Your task to perform on an android device: Open location settings Image 0: 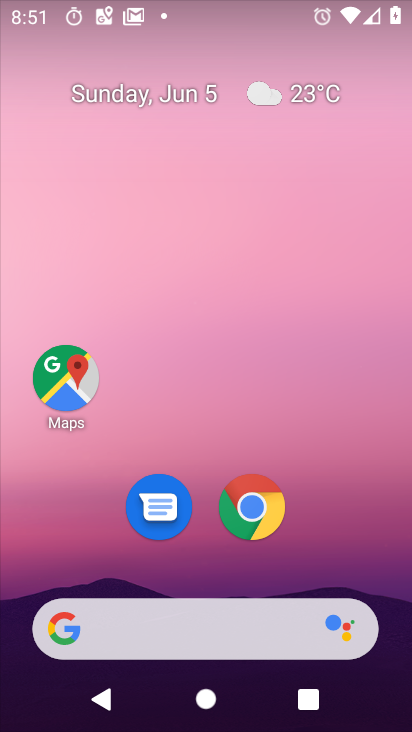
Step 0: click (339, 254)
Your task to perform on an android device: Open location settings Image 1: 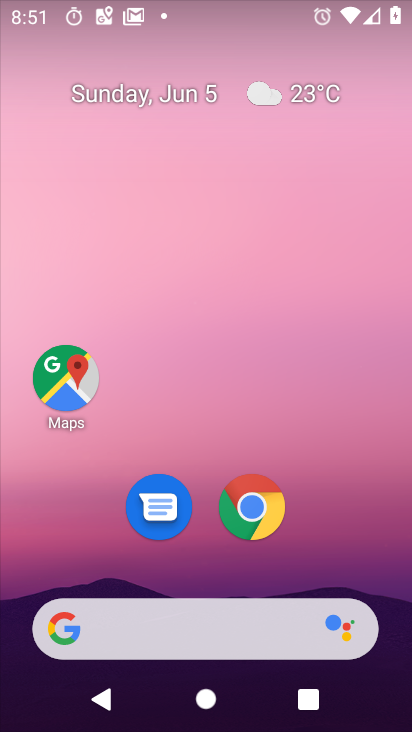
Step 1: drag from (250, 657) to (117, 20)
Your task to perform on an android device: Open location settings Image 2: 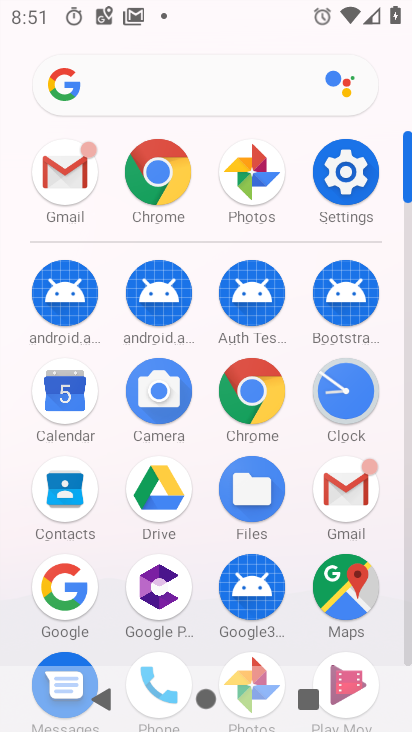
Step 2: click (356, 222)
Your task to perform on an android device: Open location settings Image 3: 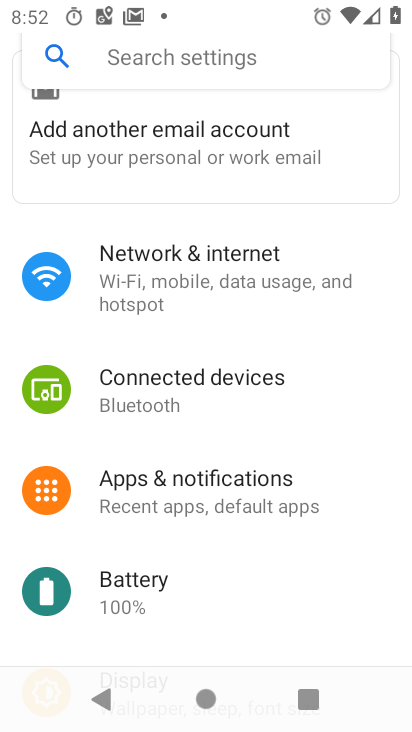
Step 3: click (145, 61)
Your task to perform on an android device: Open location settings Image 4: 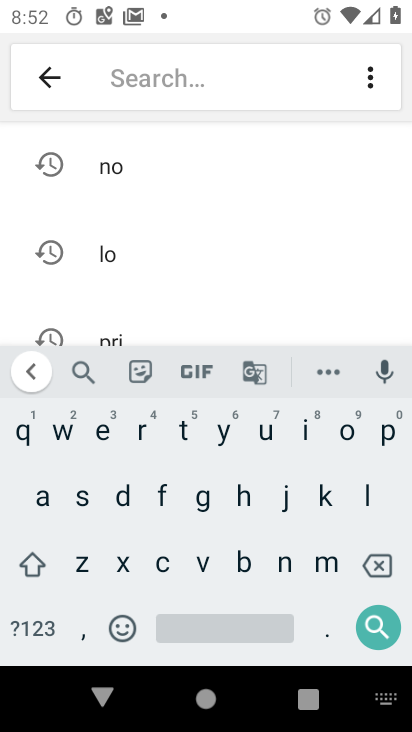
Step 4: click (186, 255)
Your task to perform on an android device: Open location settings Image 5: 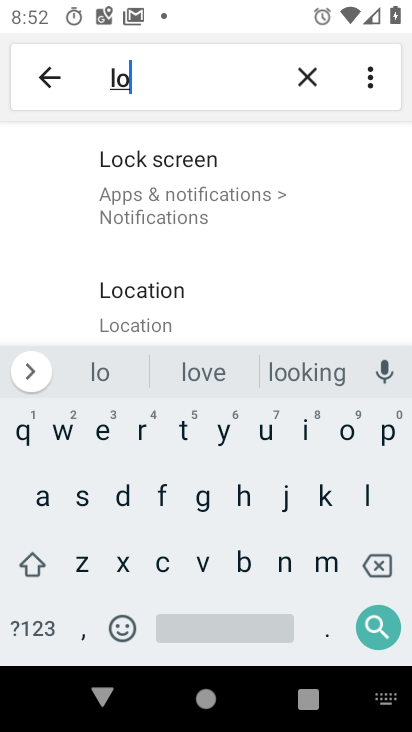
Step 5: click (173, 304)
Your task to perform on an android device: Open location settings Image 6: 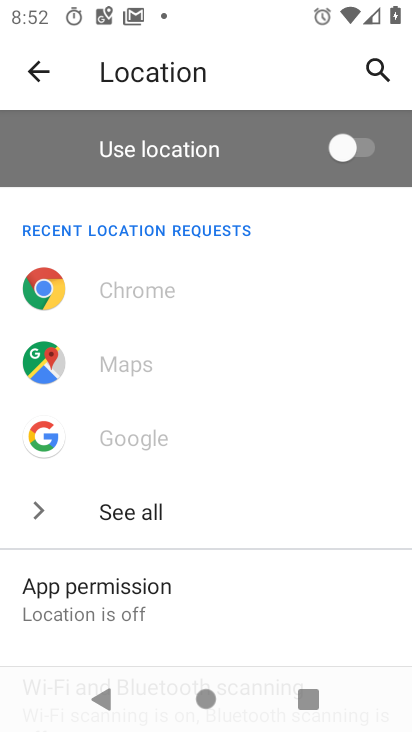
Step 6: task complete